Your task to perform on an android device: Open CNN.com Image 0: 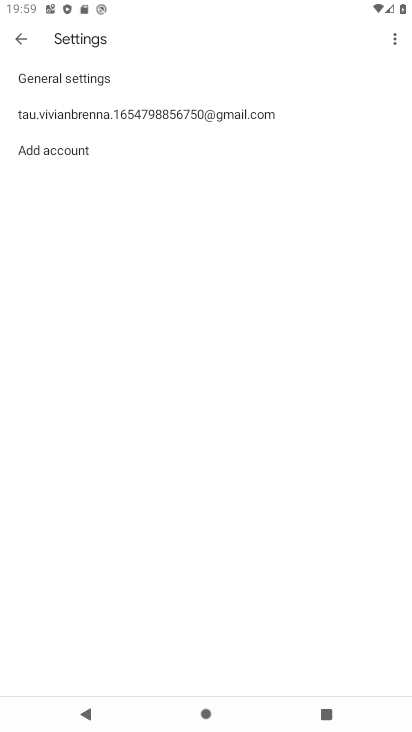
Step 0: press home button
Your task to perform on an android device: Open CNN.com Image 1: 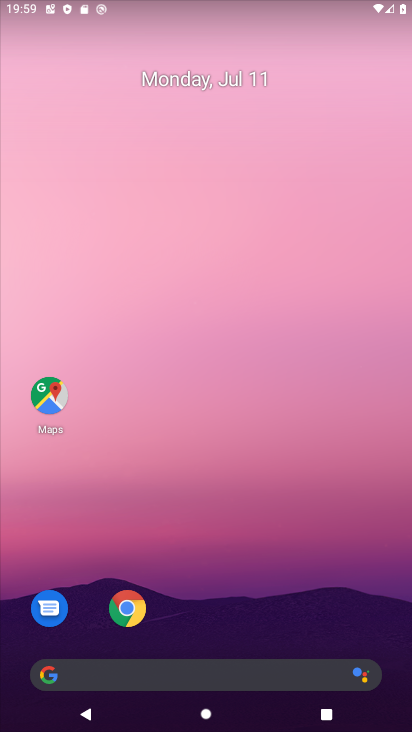
Step 1: click (129, 613)
Your task to perform on an android device: Open CNN.com Image 2: 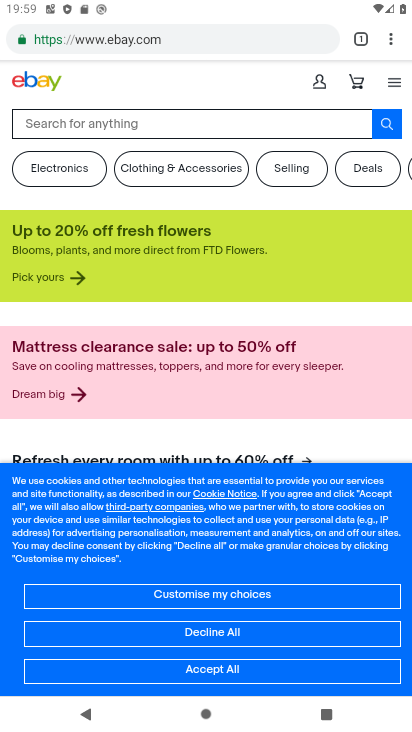
Step 2: click (255, 49)
Your task to perform on an android device: Open CNN.com Image 3: 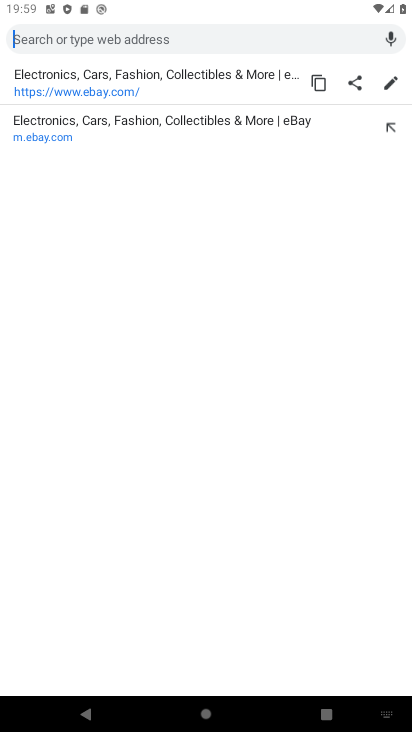
Step 3: type "cnn.com"
Your task to perform on an android device: Open CNN.com Image 4: 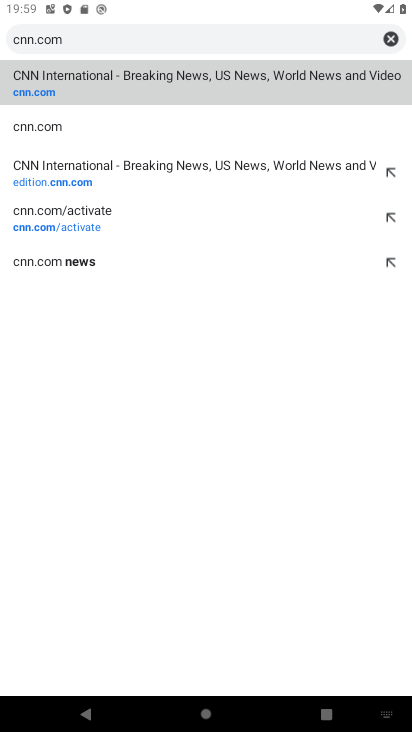
Step 4: click (170, 98)
Your task to perform on an android device: Open CNN.com Image 5: 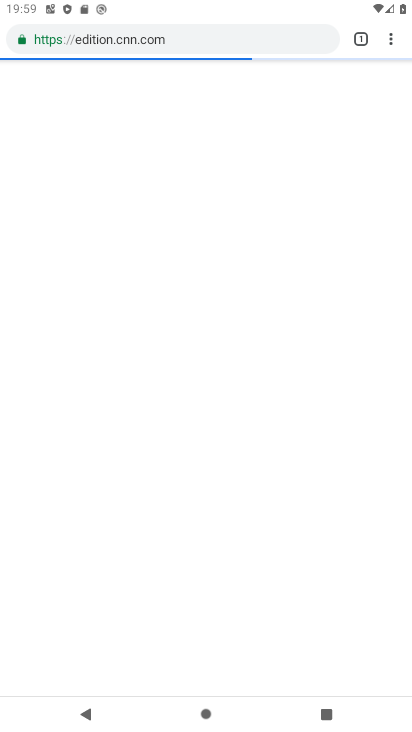
Step 5: task complete